Your task to perform on an android device: Open wifi settings Image 0: 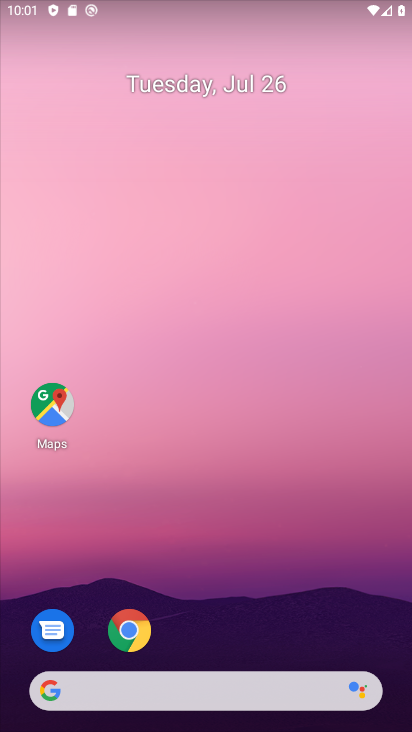
Step 0: drag from (377, 632) to (319, 142)
Your task to perform on an android device: Open wifi settings Image 1: 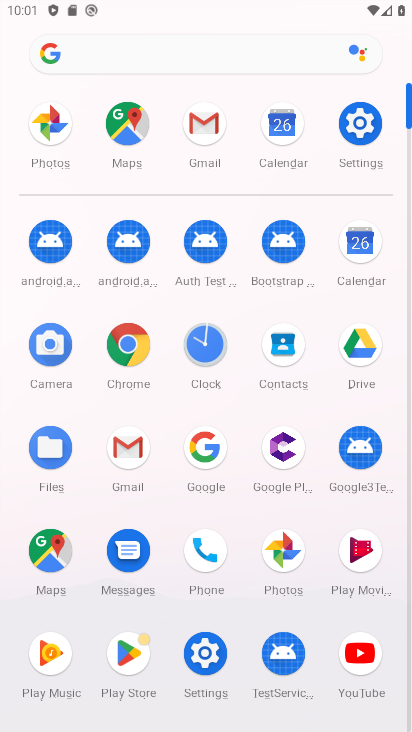
Step 1: click (204, 655)
Your task to perform on an android device: Open wifi settings Image 2: 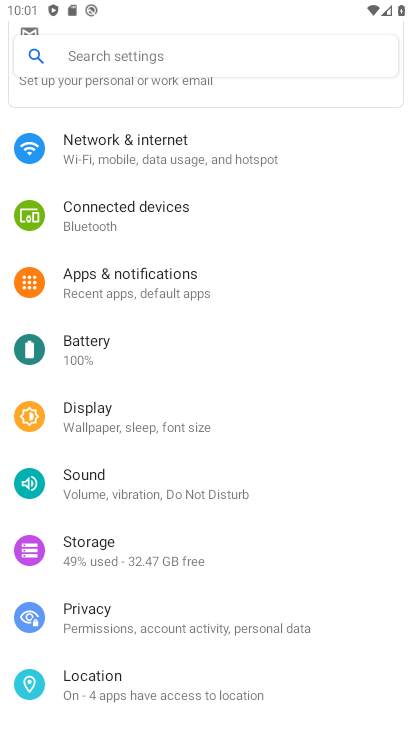
Step 2: click (96, 142)
Your task to perform on an android device: Open wifi settings Image 3: 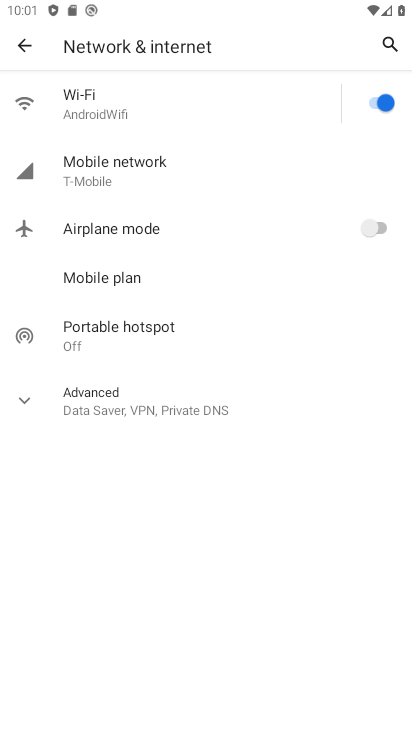
Step 3: click (74, 96)
Your task to perform on an android device: Open wifi settings Image 4: 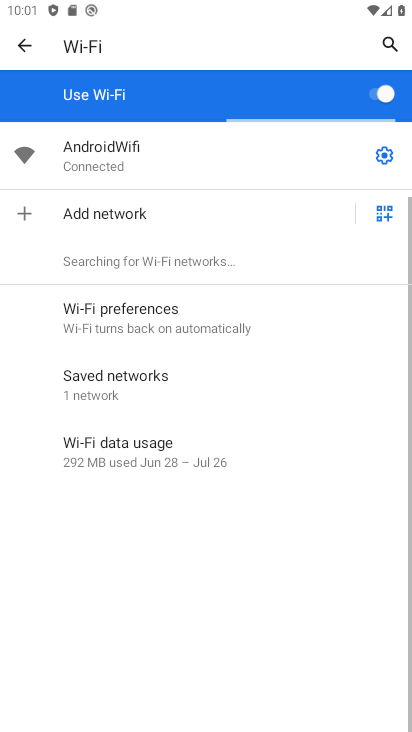
Step 4: click (383, 159)
Your task to perform on an android device: Open wifi settings Image 5: 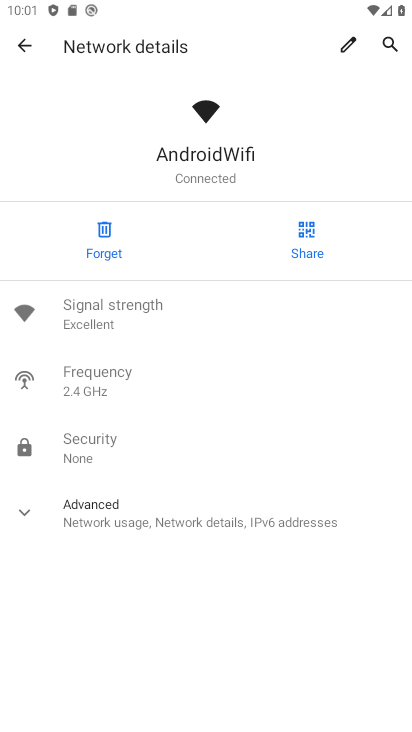
Step 5: task complete